Your task to perform on an android device: Go to Wikipedia Image 0: 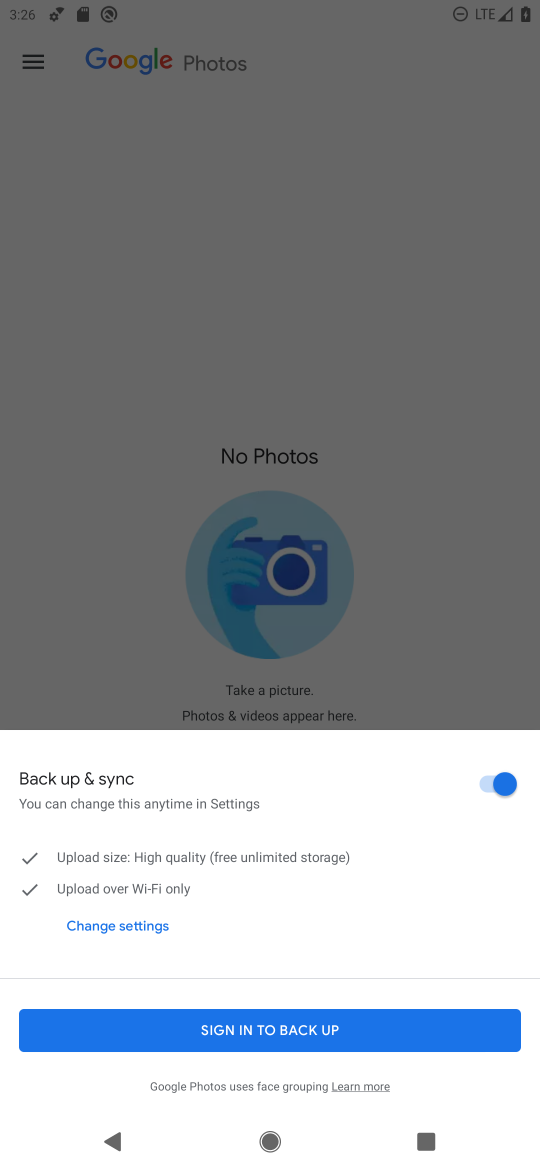
Step 0: press home button
Your task to perform on an android device: Go to Wikipedia Image 1: 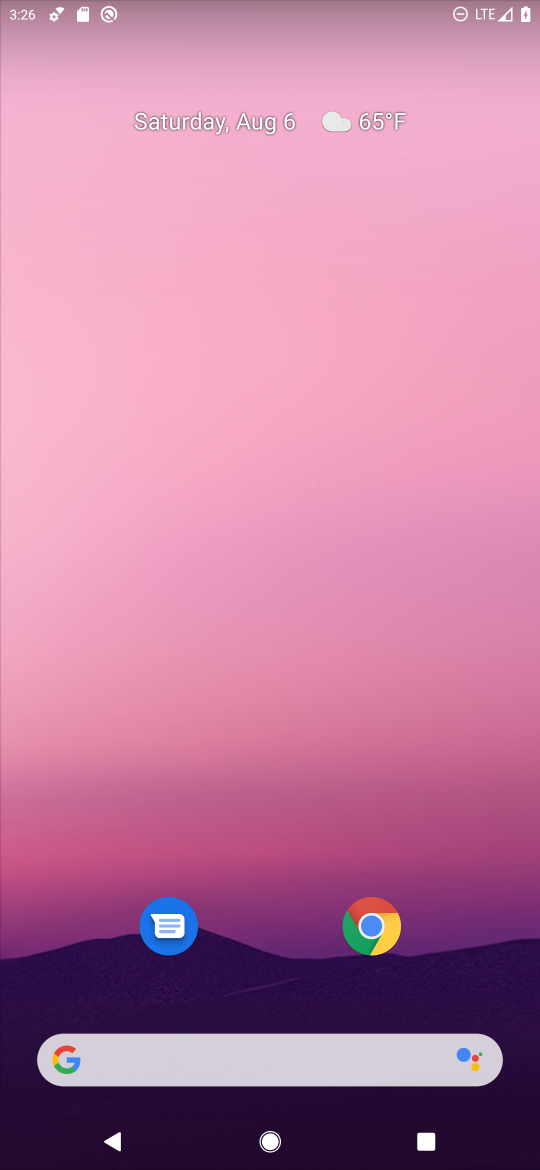
Step 1: click (345, 929)
Your task to perform on an android device: Go to Wikipedia Image 2: 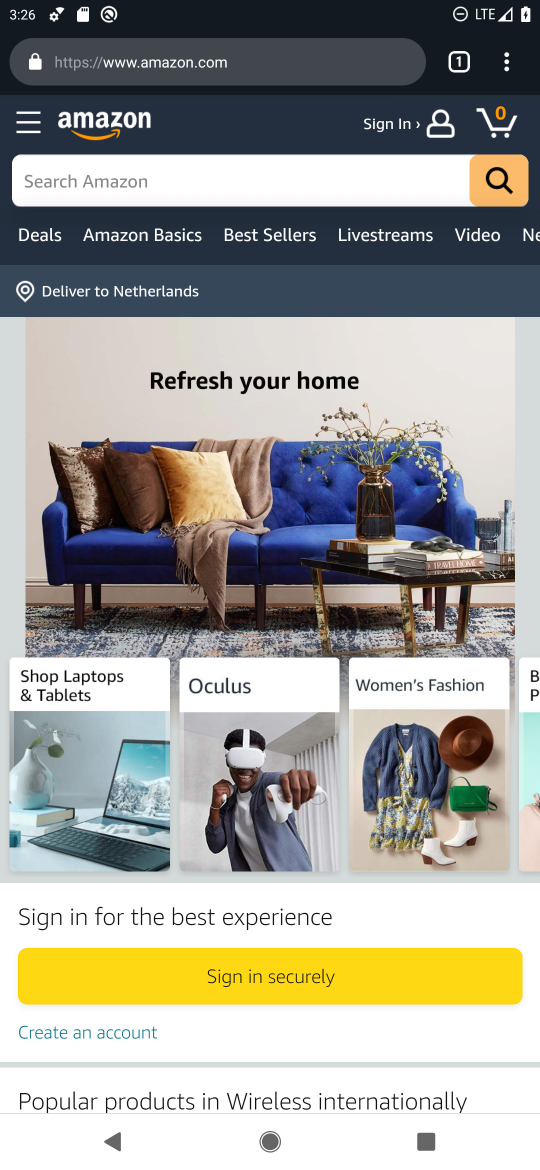
Step 2: click (462, 65)
Your task to perform on an android device: Go to Wikipedia Image 3: 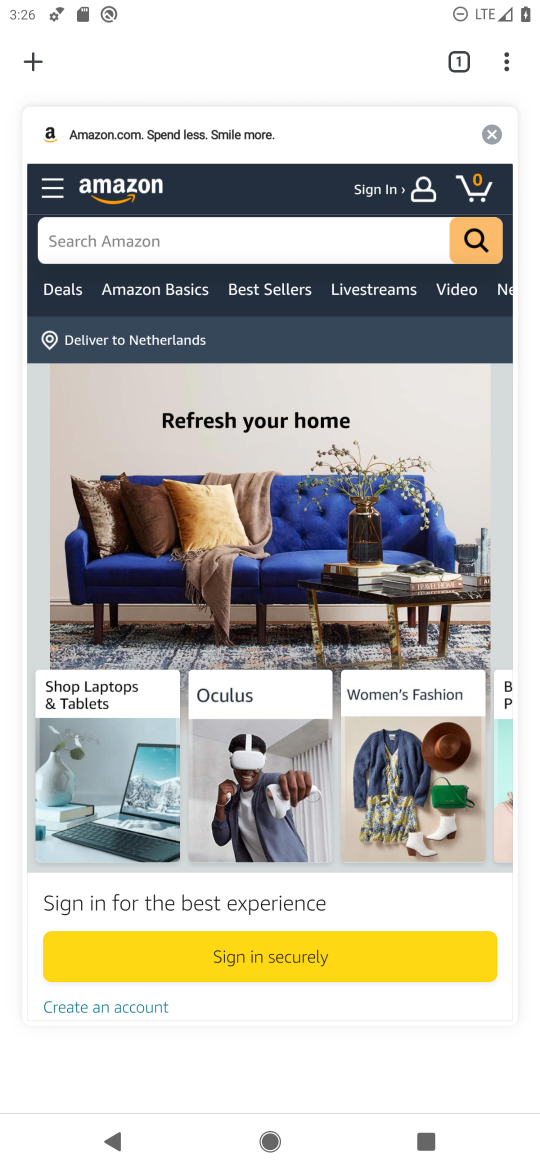
Step 3: click (37, 60)
Your task to perform on an android device: Go to Wikipedia Image 4: 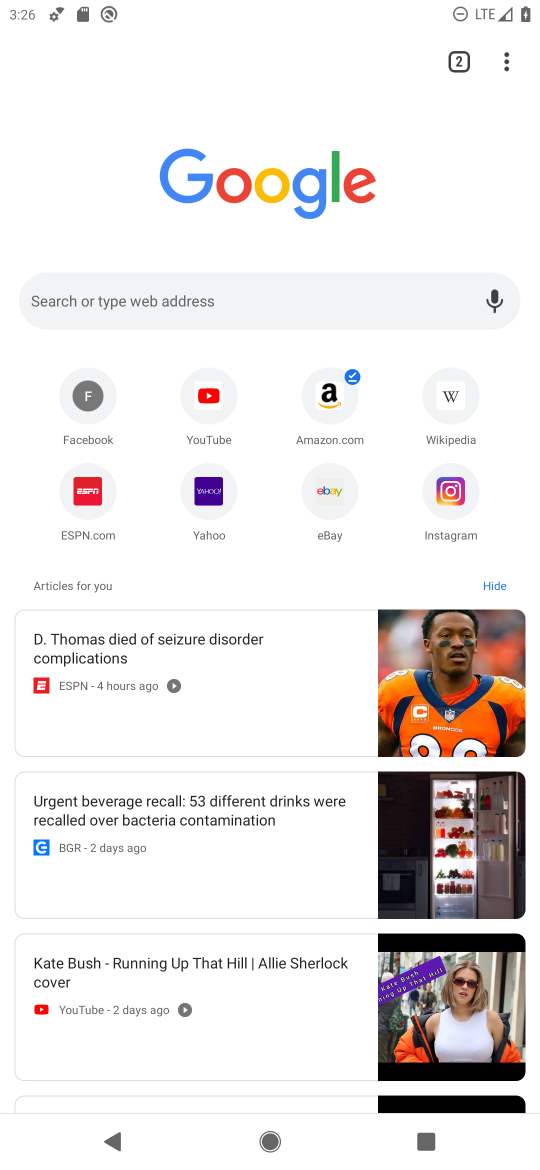
Step 4: click (442, 398)
Your task to perform on an android device: Go to Wikipedia Image 5: 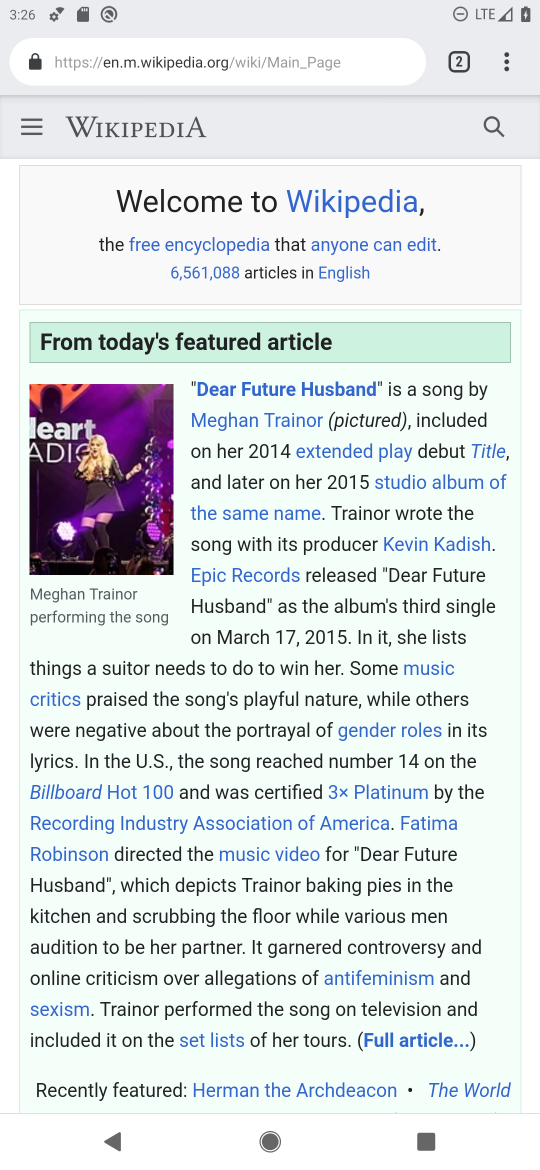
Step 5: task complete